Your task to perform on an android device: set the stopwatch Image 0: 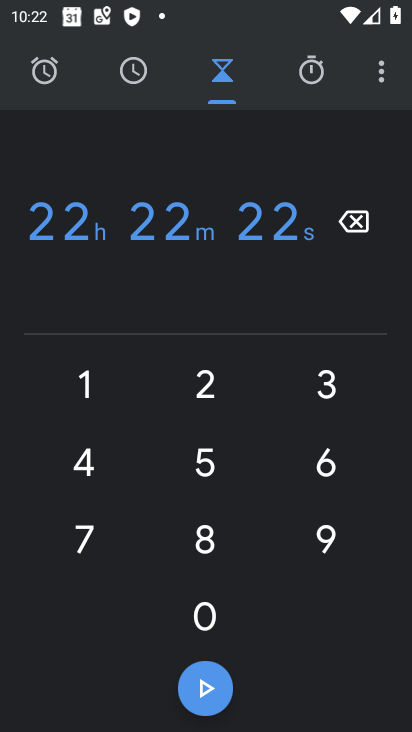
Step 0: press home button
Your task to perform on an android device: set the stopwatch Image 1: 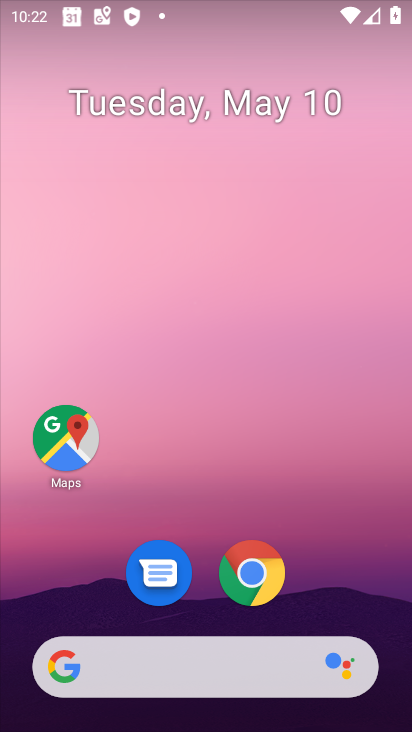
Step 1: drag from (319, 556) to (181, 88)
Your task to perform on an android device: set the stopwatch Image 2: 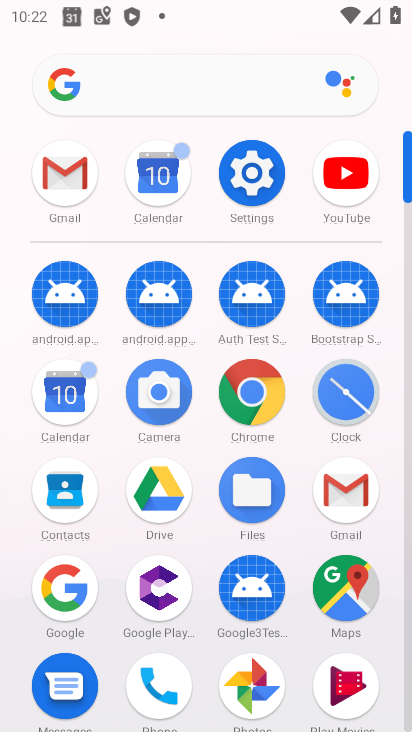
Step 2: click (341, 390)
Your task to perform on an android device: set the stopwatch Image 3: 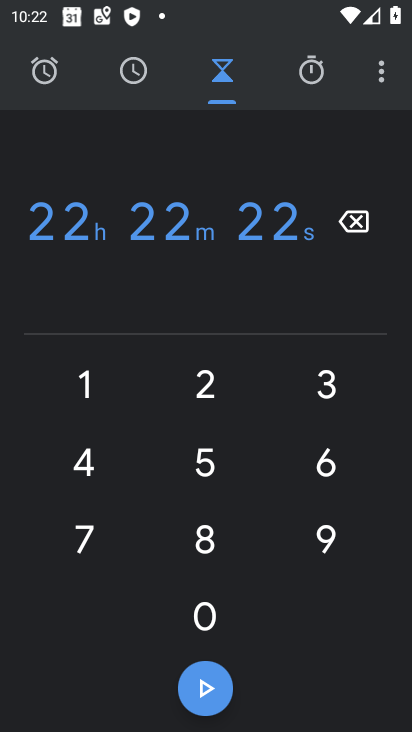
Step 3: click (306, 78)
Your task to perform on an android device: set the stopwatch Image 4: 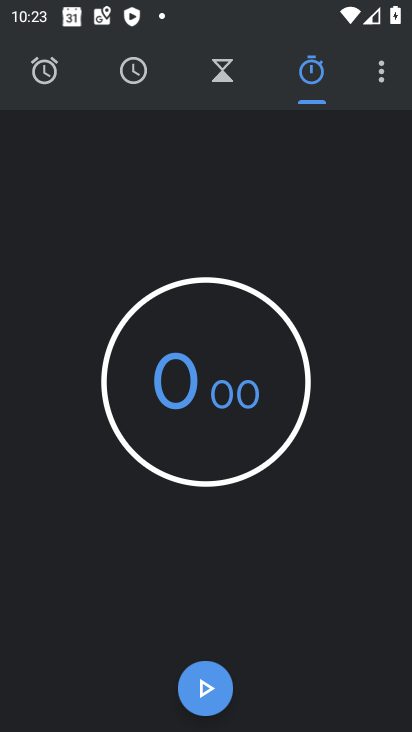
Step 4: task complete